Your task to perform on an android device: Go to Reddit.com Image 0: 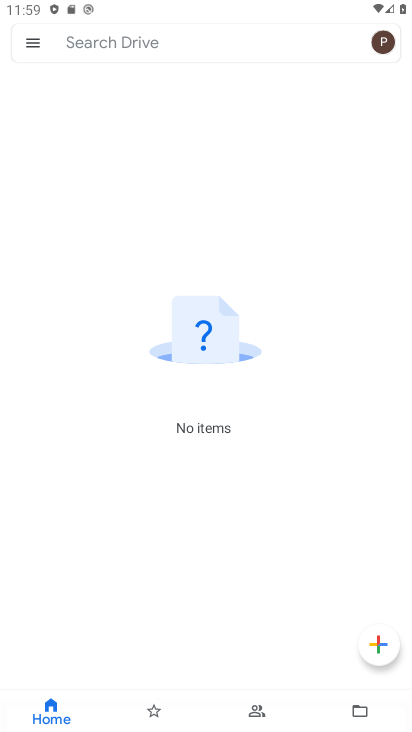
Step 0: press home button
Your task to perform on an android device: Go to Reddit.com Image 1: 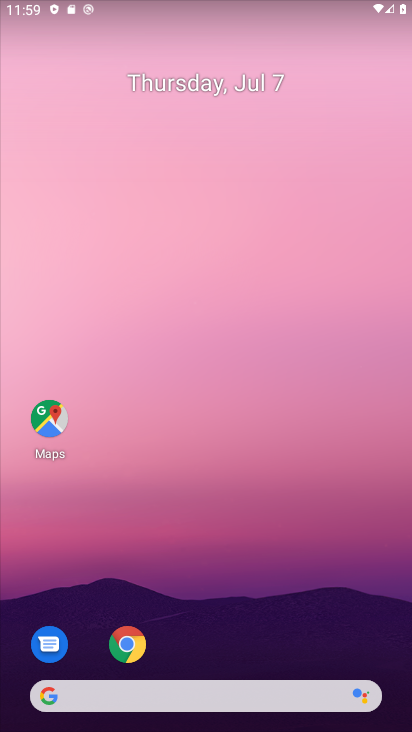
Step 1: drag from (227, 692) to (126, 216)
Your task to perform on an android device: Go to Reddit.com Image 2: 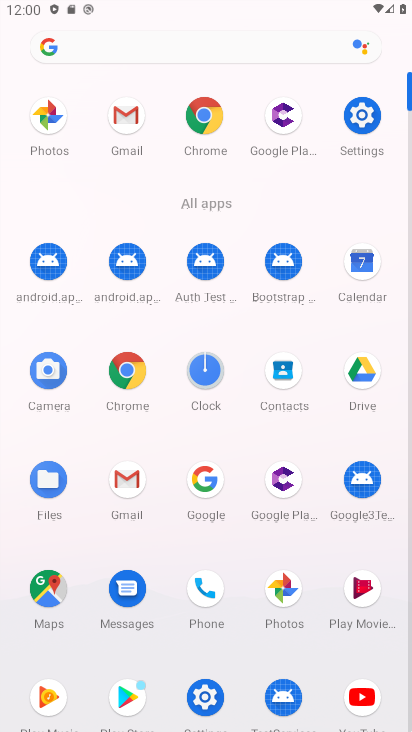
Step 2: click (216, 130)
Your task to perform on an android device: Go to Reddit.com Image 3: 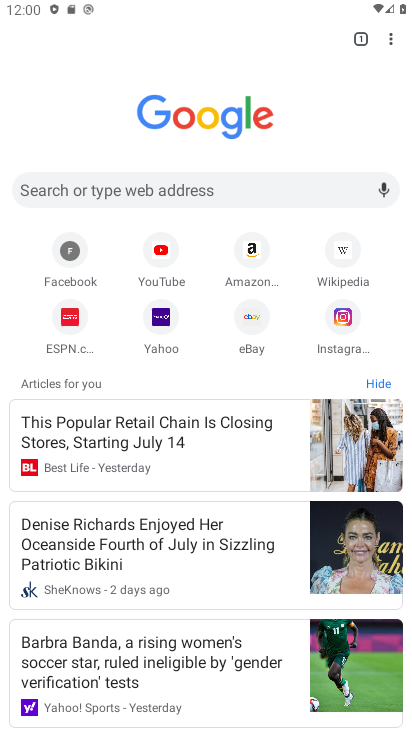
Step 3: click (200, 188)
Your task to perform on an android device: Go to Reddit.com Image 4: 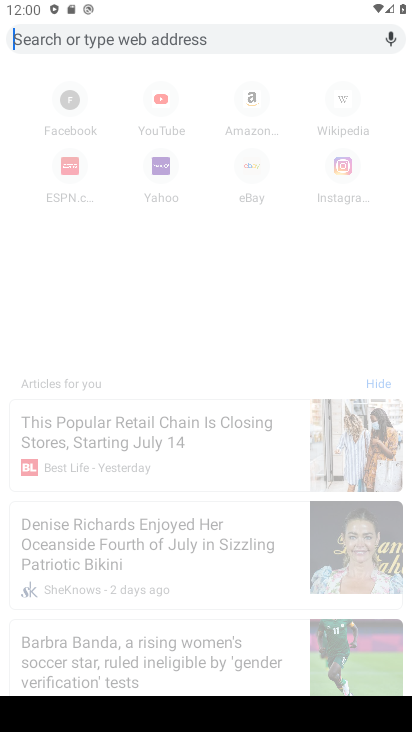
Step 4: type ""
Your task to perform on an android device: Go to Reddit.com Image 5: 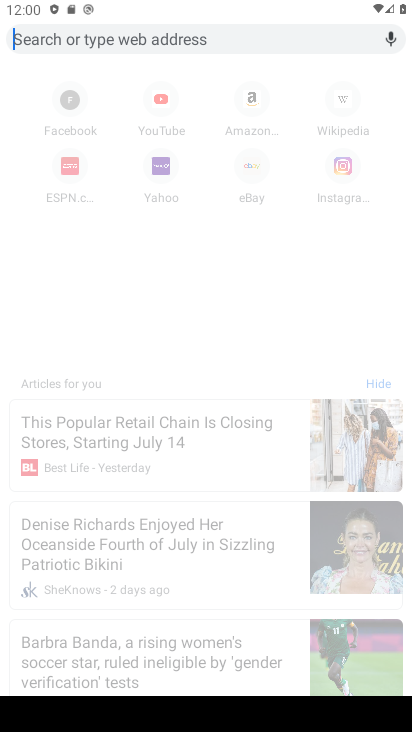
Step 5: type "reddit.com"
Your task to perform on an android device: Go to Reddit.com Image 6: 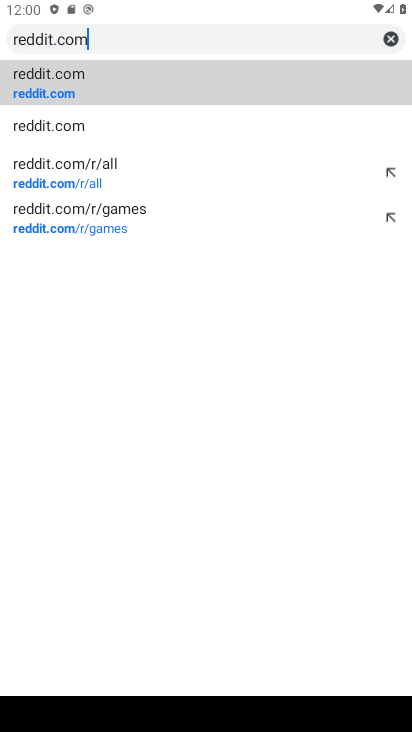
Step 6: click (84, 88)
Your task to perform on an android device: Go to Reddit.com Image 7: 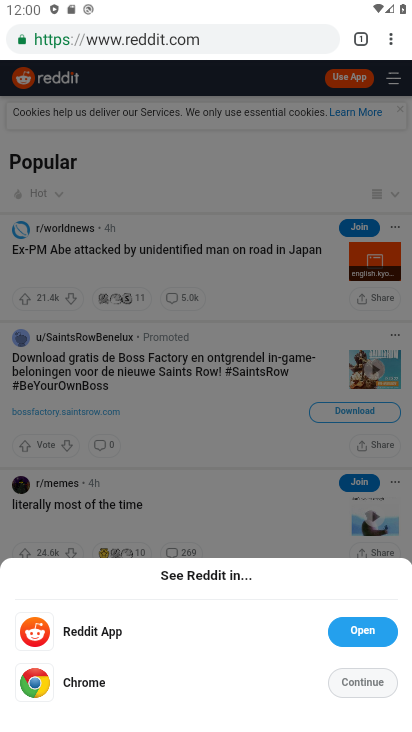
Step 7: task complete